Your task to perform on an android device: toggle show notifications on the lock screen Image 0: 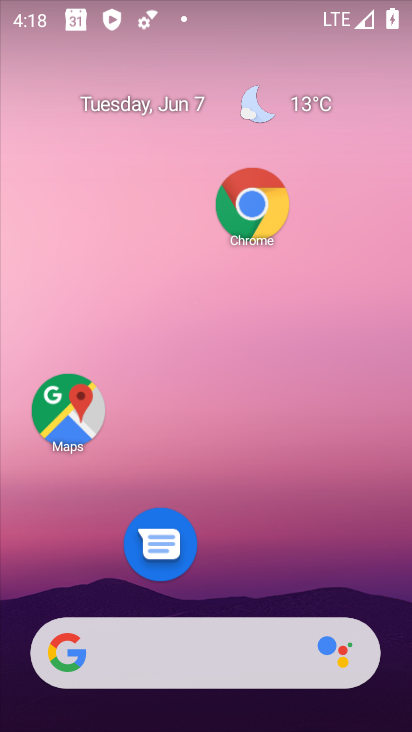
Step 0: press home button
Your task to perform on an android device: toggle show notifications on the lock screen Image 1: 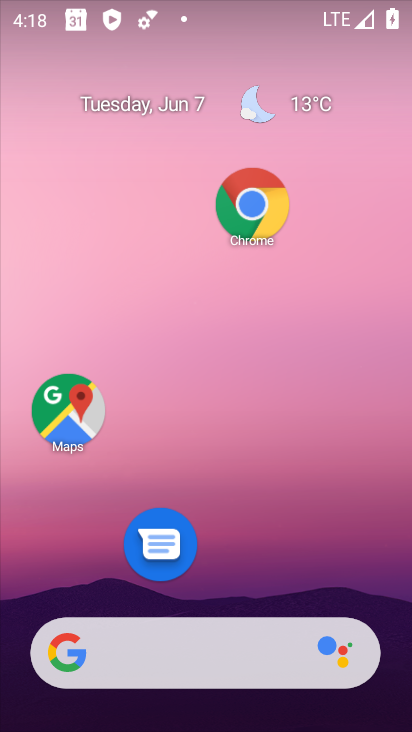
Step 1: drag from (238, 591) to (278, 134)
Your task to perform on an android device: toggle show notifications on the lock screen Image 2: 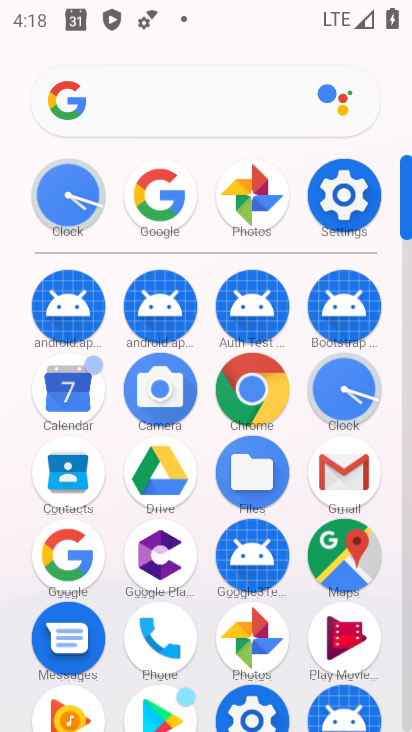
Step 2: click (346, 186)
Your task to perform on an android device: toggle show notifications on the lock screen Image 3: 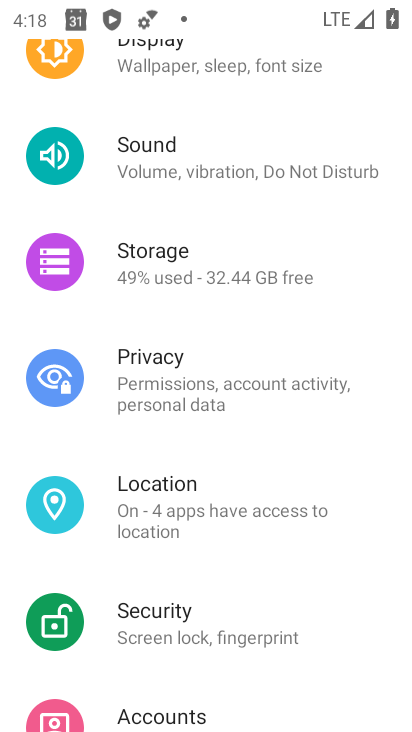
Step 3: drag from (186, 114) to (214, 697)
Your task to perform on an android device: toggle show notifications on the lock screen Image 4: 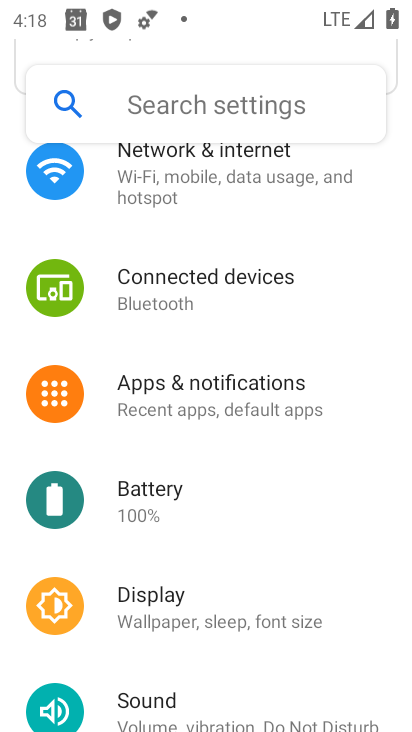
Step 4: click (310, 389)
Your task to perform on an android device: toggle show notifications on the lock screen Image 5: 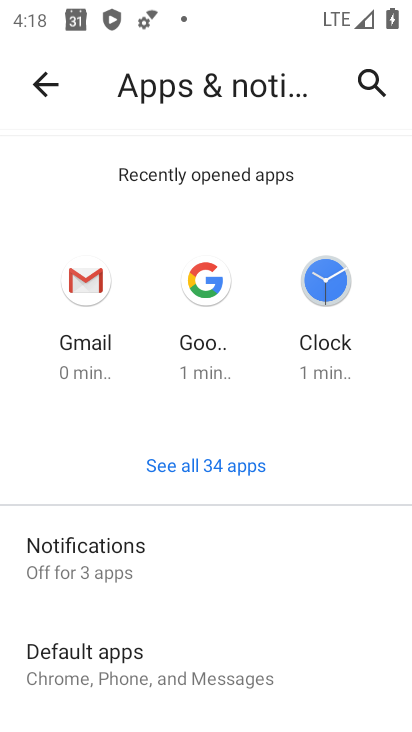
Step 5: click (165, 548)
Your task to perform on an android device: toggle show notifications on the lock screen Image 6: 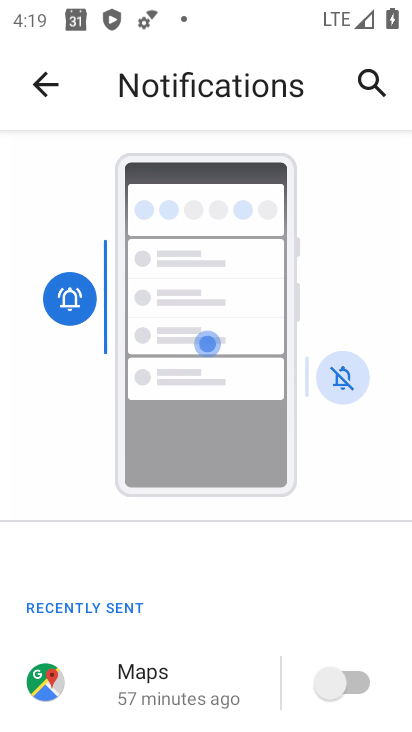
Step 6: drag from (227, 641) to (280, 385)
Your task to perform on an android device: toggle show notifications on the lock screen Image 7: 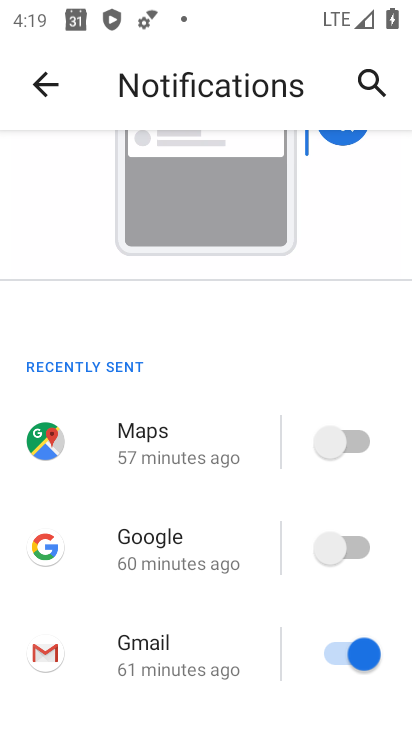
Step 7: drag from (219, 639) to (270, 274)
Your task to perform on an android device: toggle show notifications on the lock screen Image 8: 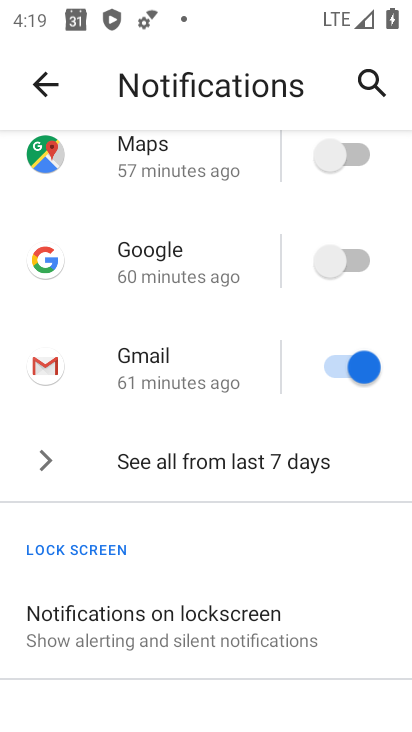
Step 8: click (214, 610)
Your task to perform on an android device: toggle show notifications on the lock screen Image 9: 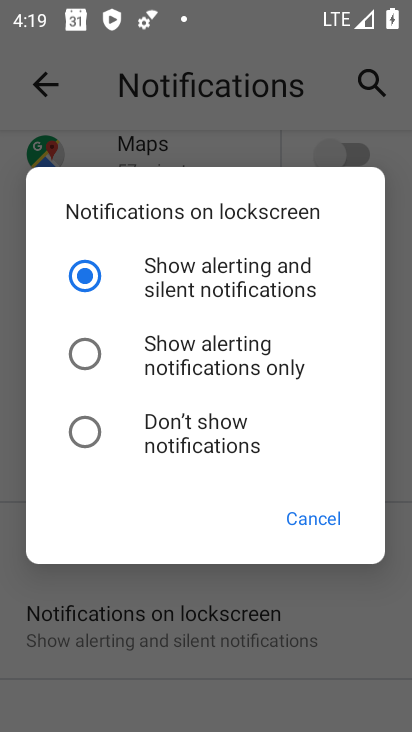
Step 9: click (90, 354)
Your task to perform on an android device: toggle show notifications on the lock screen Image 10: 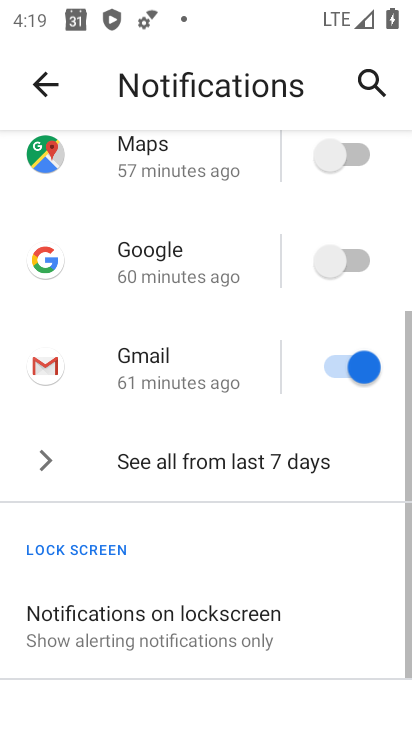
Step 10: task complete